Your task to perform on an android device: open the mobile data screen to see how much data has been used Image 0: 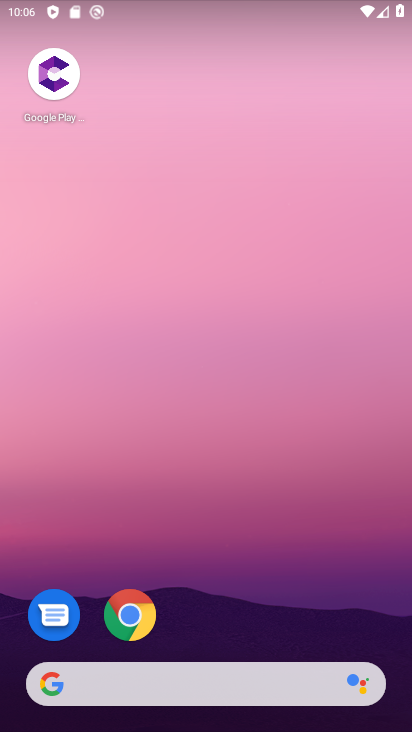
Step 0: drag from (220, 615) to (275, 71)
Your task to perform on an android device: open the mobile data screen to see how much data has been used Image 1: 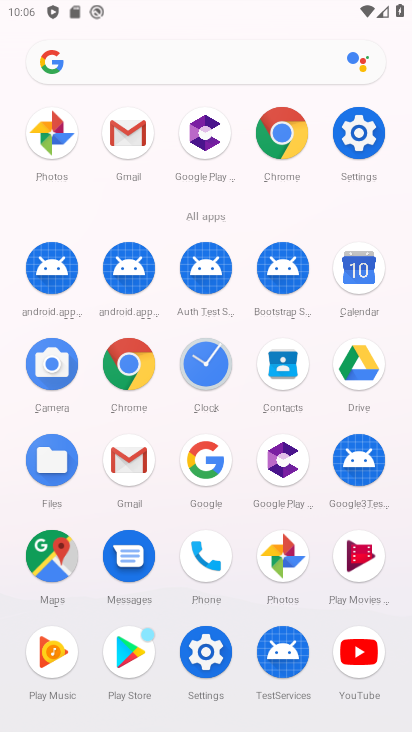
Step 1: click (358, 132)
Your task to perform on an android device: open the mobile data screen to see how much data has been used Image 2: 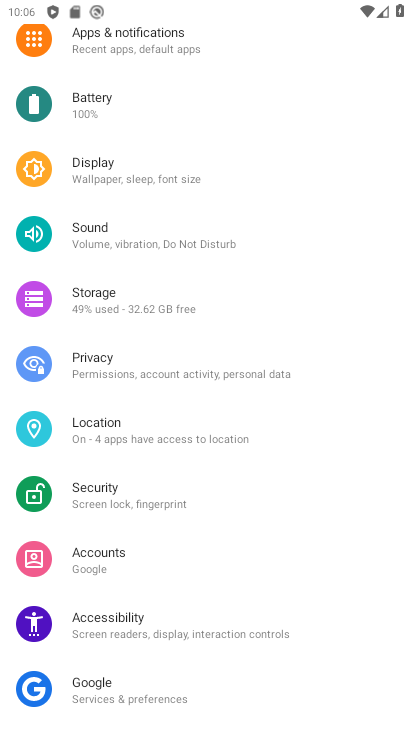
Step 2: drag from (151, 129) to (155, 220)
Your task to perform on an android device: open the mobile data screen to see how much data has been used Image 3: 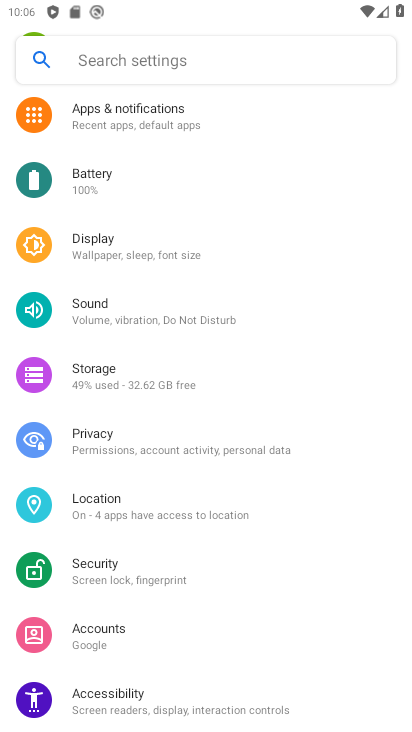
Step 3: drag from (151, 161) to (155, 255)
Your task to perform on an android device: open the mobile data screen to see how much data has been used Image 4: 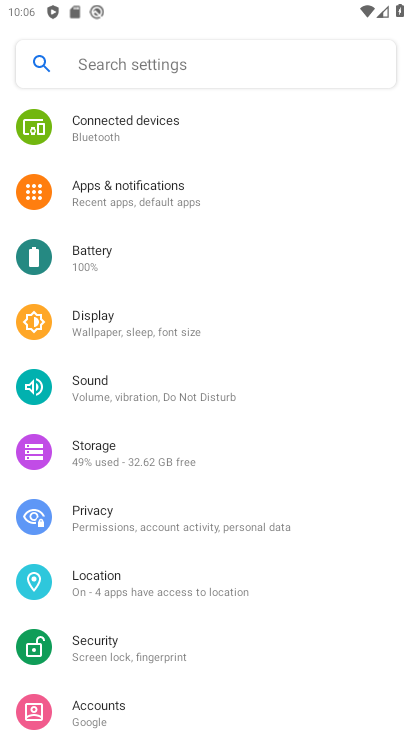
Step 4: drag from (150, 134) to (164, 221)
Your task to perform on an android device: open the mobile data screen to see how much data has been used Image 5: 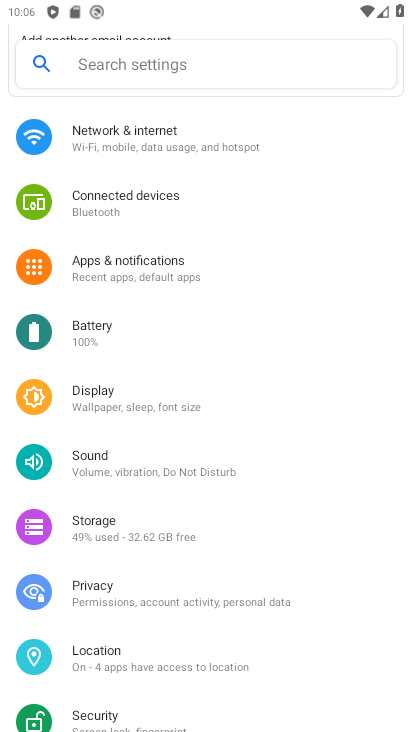
Step 5: drag from (145, 121) to (163, 267)
Your task to perform on an android device: open the mobile data screen to see how much data has been used Image 6: 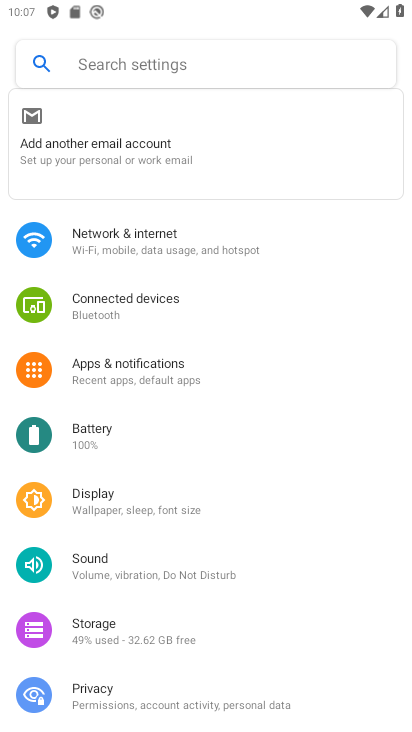
Step 6: click (108, 233)
Your task to perform on an android device: open the mobile data screen to see how much data has been used Image 7: 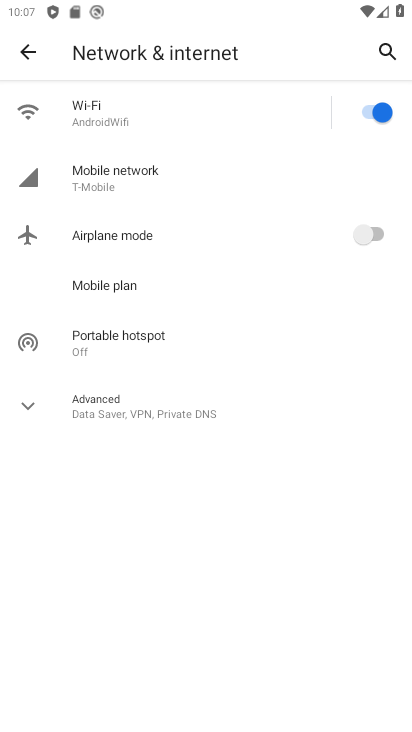
Step 7: click (105, 187)
Your task to perform on an android device: open the mobile data screen to see how much data has been used Image 8: 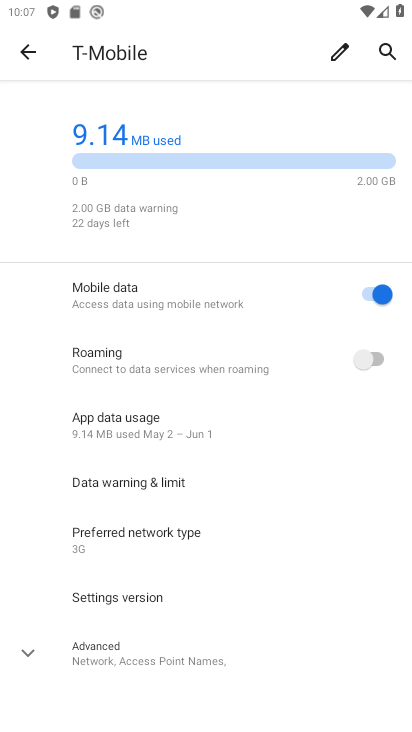
Step 8: task complete